Your task to perform on an android device: Open Google Maps and go to "Timeline" Image 0: 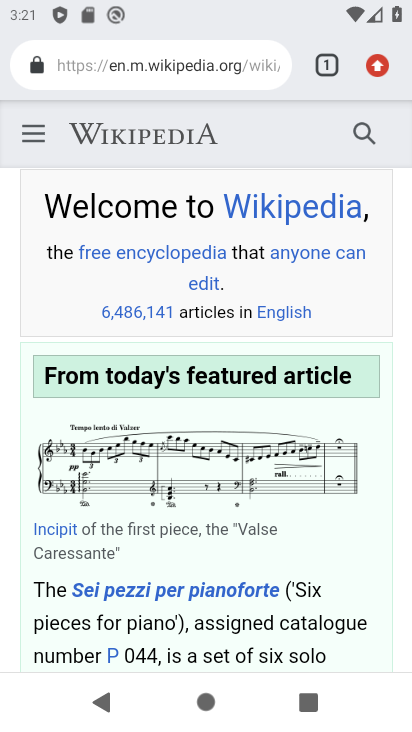
Step 0: press home button
Your task to perform on an android device: Open Google Maps and go to "Timeline" Image 1: 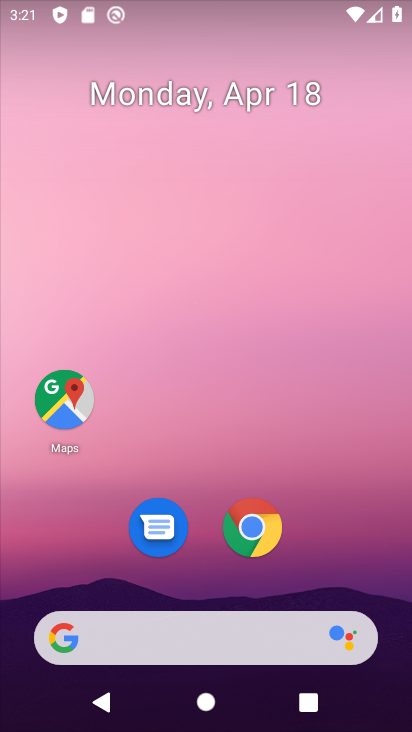
Step 1: click (47, 391)
Your task to perform on an android device: Open Google Maps and go to "Timeline" Image 2: 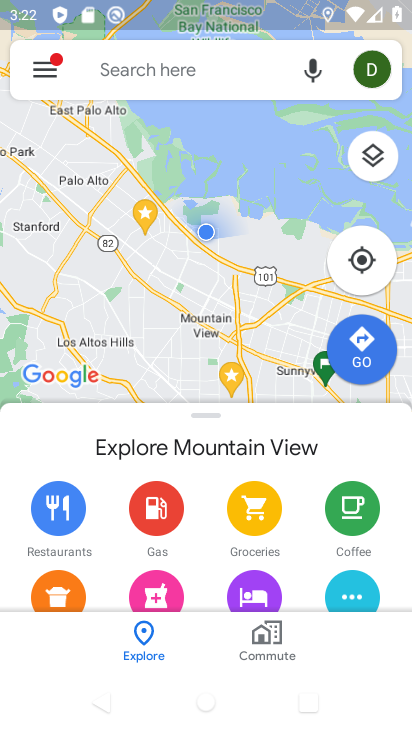
Step 2: click (39, 84)
Your task to perform on an android device: Open Google Maps and go to "Timeline" Image 3: 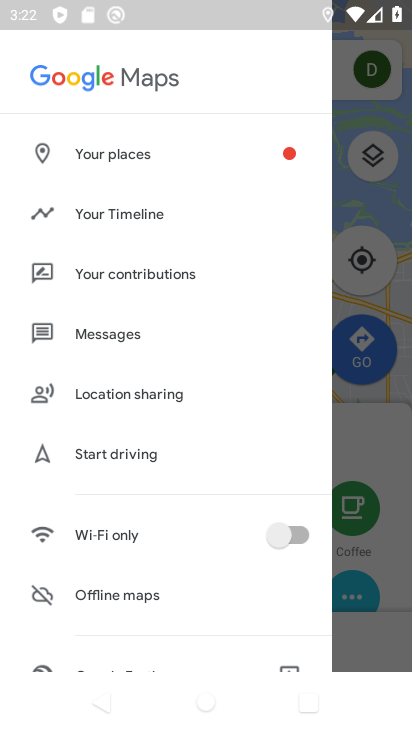
Step 3: click (135, 216)
Your task to perform on an android device: Open Google Maps and go to "Timeline" Image 4: 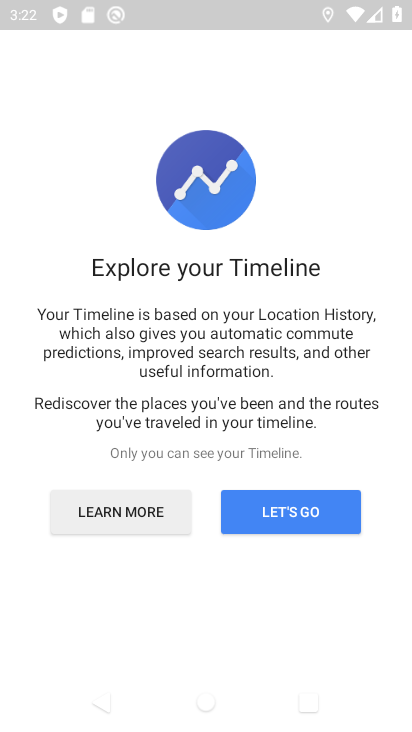
Step 4: click (284, 512)
Your task to perform on an android device: Open Google Maps and go to "Timeline" Image 5: 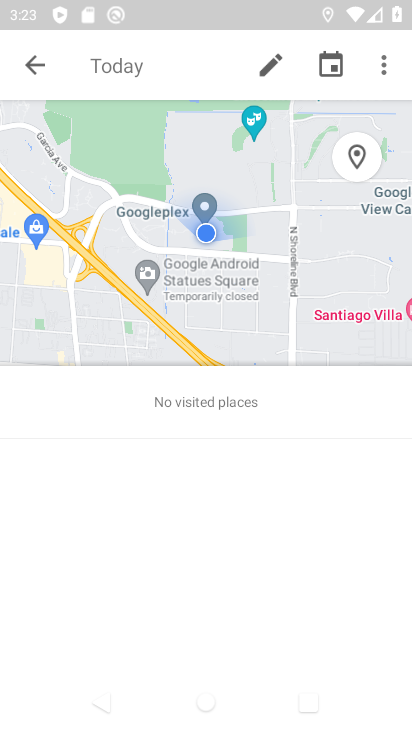
Step 5: task complete